Your task to perform on an android device: find photos in the google photos app Image 0: 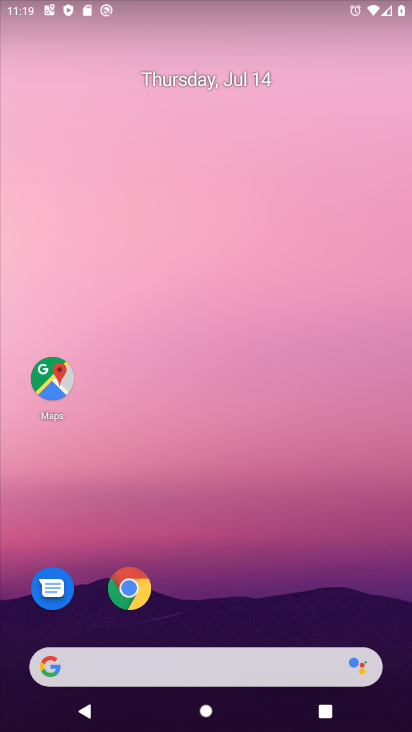
Step 0: drag from (302, 554) to (321, 77)
Your task to perform on an android device: find photos in the google photos app Image 1: 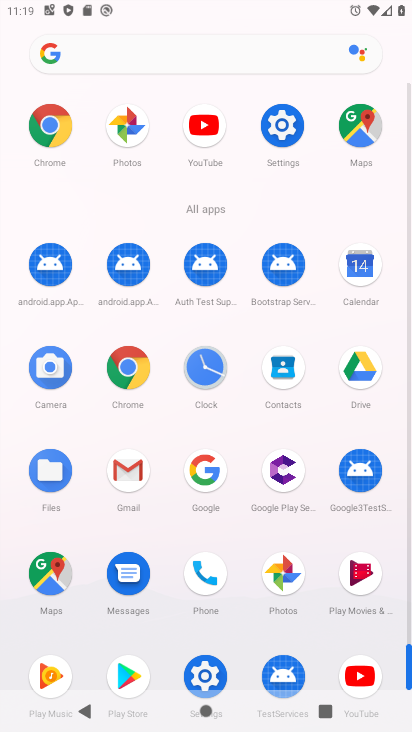
Step 1: click (283, 569)
Your task to perform on an android device: find photos in the google photos app Image 2: 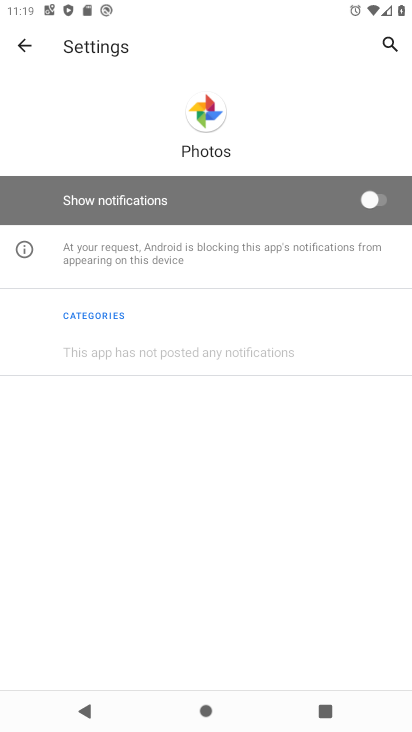
Step 2: task complete